Your task to perform on an android device: check the backup settings in the google photos Image 0: 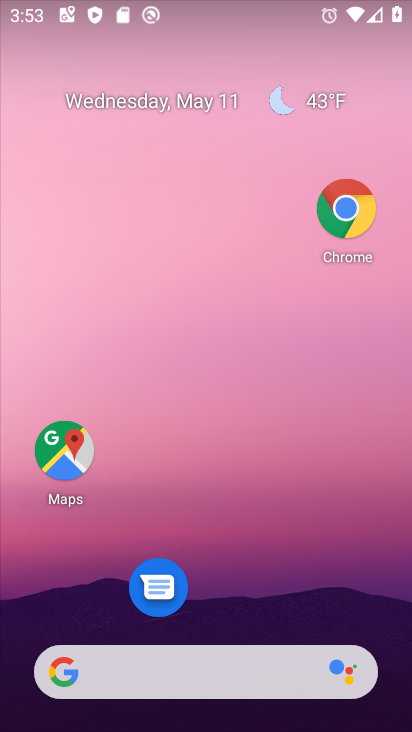
Step 0: drag from (231, 583) to (249, 296)
Your task to perform on an android device: check the backup settings in the google photos Image 1: 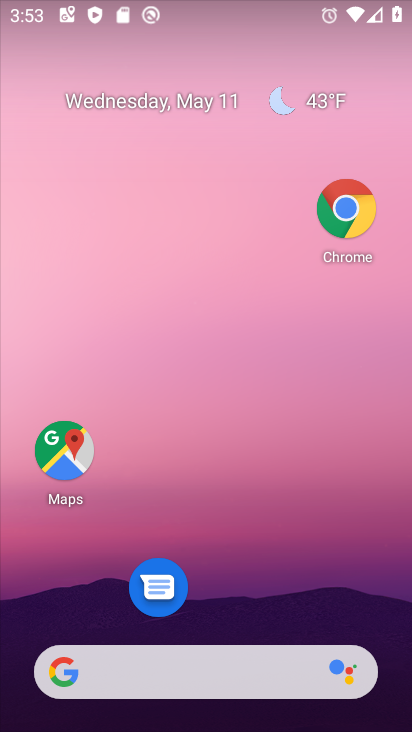
Step 1: drag from (267, 705) to (364, 0)
Your task to perform on an android device: check the backup settings in the google photos Image 2: 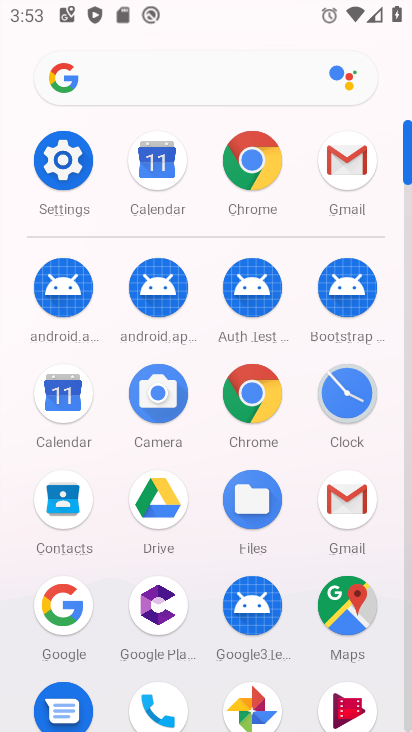
Step 2: click (254, 702)
Your task to perform on an android device: check the backup settings in the google photos Image 3: 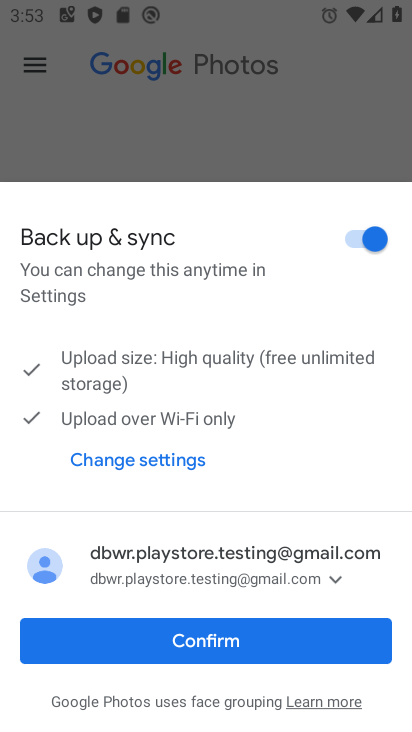
Step 3: click (275, 91)
Your task to perform on an android device: check the backup settings in the google photos Image 4: 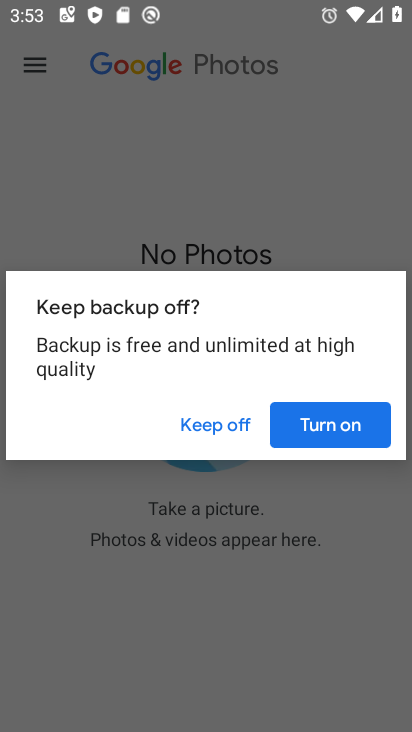
Step 4: click (290, 432)
Your task to perform on an android device: check the backup settings in the google photos Image 5: 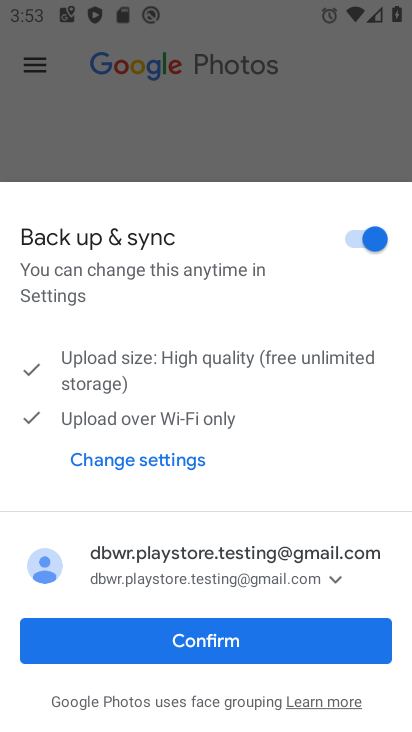
Step 5: click (256, 641)
Your task to perform on an android device: check the backup settings in the google photos Image 6: 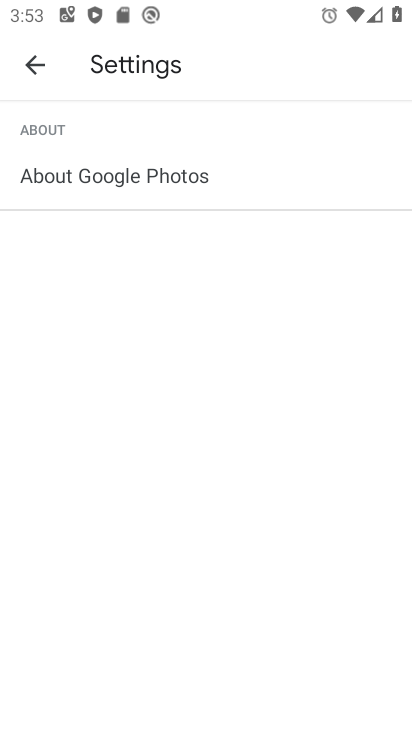
Step 6: click (230, 190)
Your task to perform on an android device: check the backup settings in the google photos Image 7: 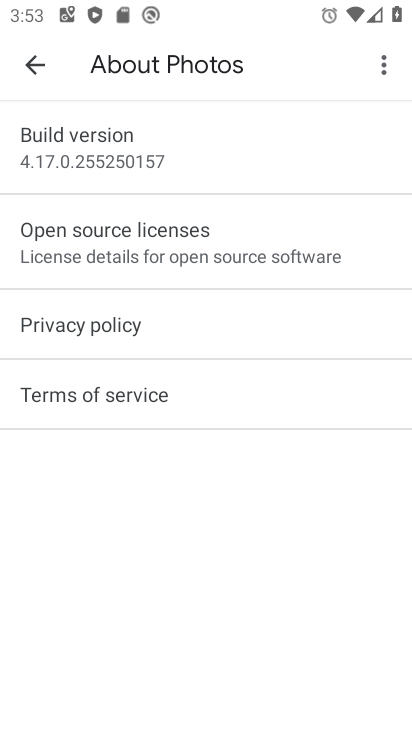
Step 7: task complete